Your task to perform on an android device: change the clock display to show seconds Image 0: 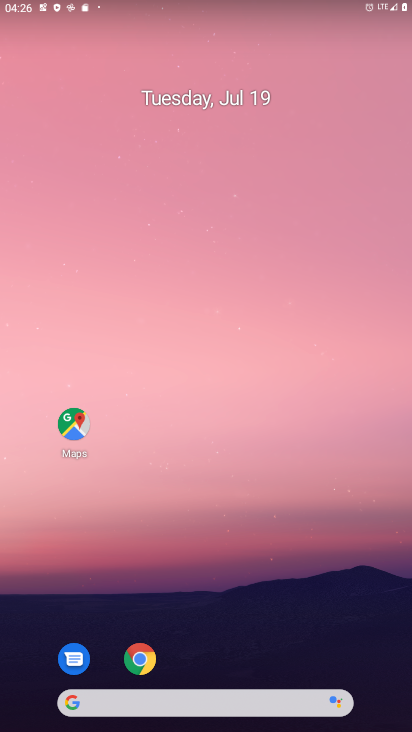
Step 0: drag from (328, 680) to (306, 123)
Your task to perform on an android device: change the clock display to show seconds Image 1: 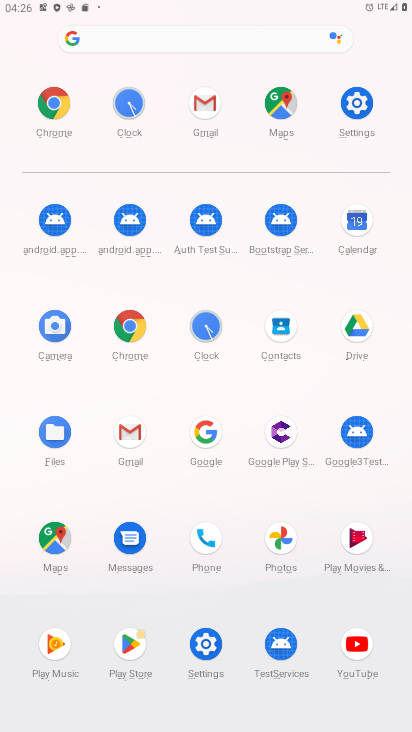
Step 1: click (213, 305)
Your task to perform on an android device: change the clock display to show seconds Image 2: 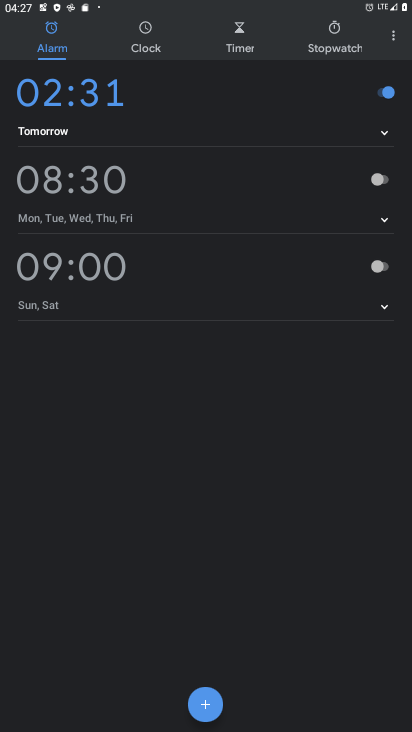
Step 2: click (391, 45)
Your task to perform on an android device: change the clock display to show seconds Image 3: 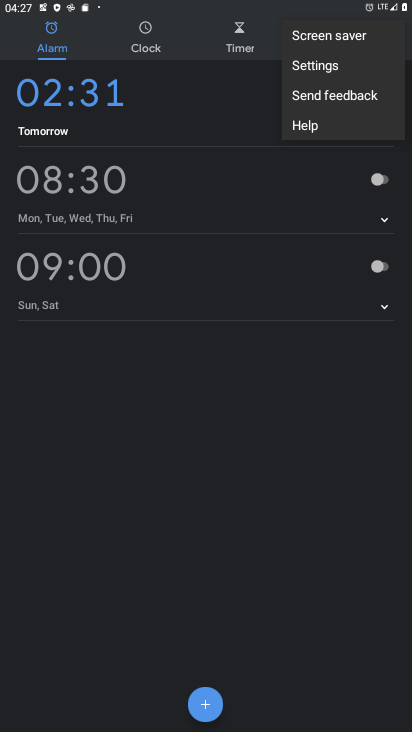
Step 3: click (332, 61)
Your task to perform on an android device: change the clock display to show seconds Image 4: 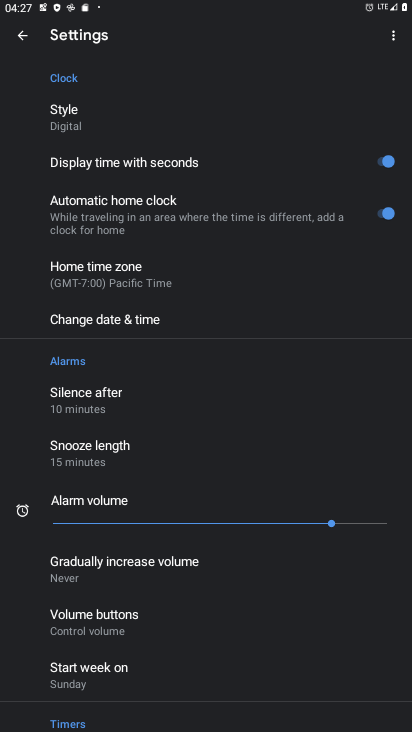
Step 4: task complete